Your task to perform on an android device: Open display settings Image 0: 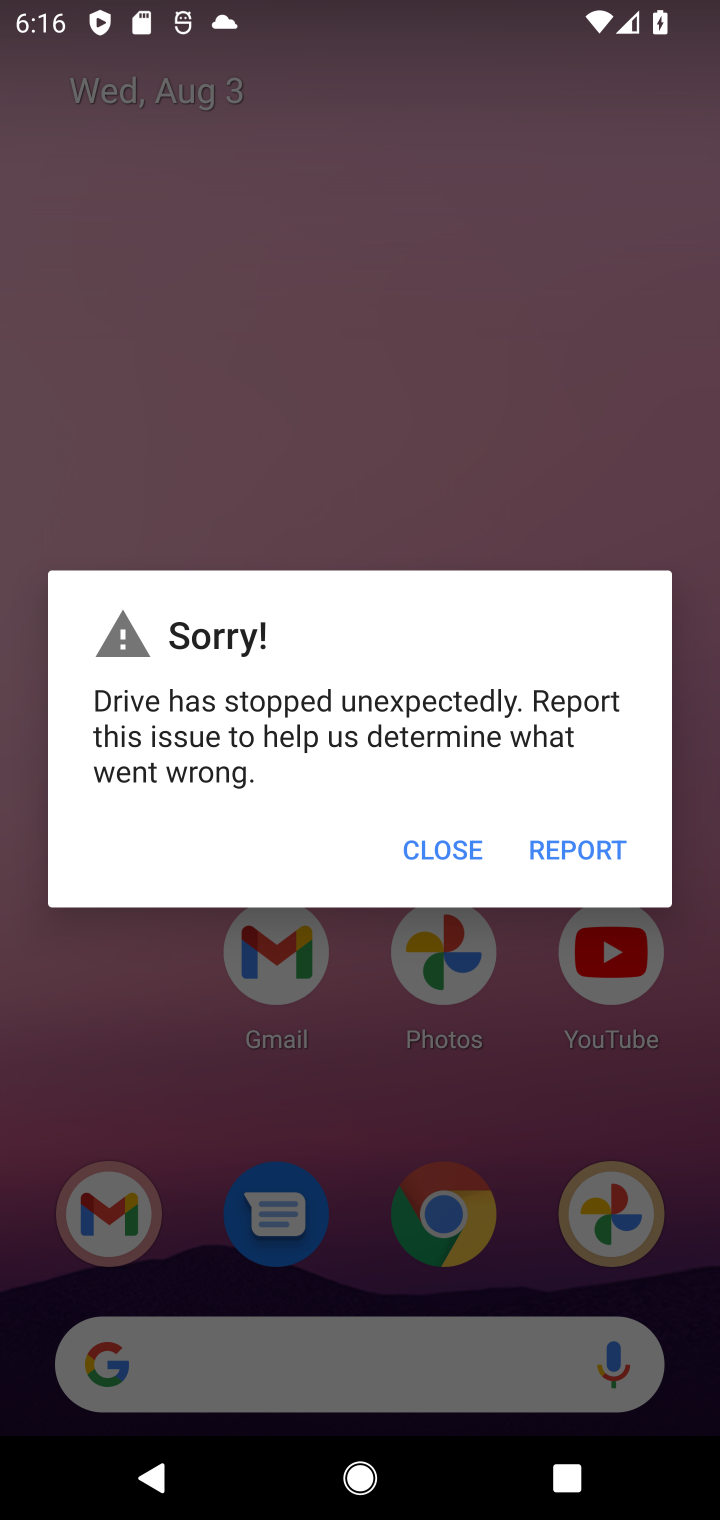
Step 0: press home button
Your task to perform on an android device: Open display settings Image 1: 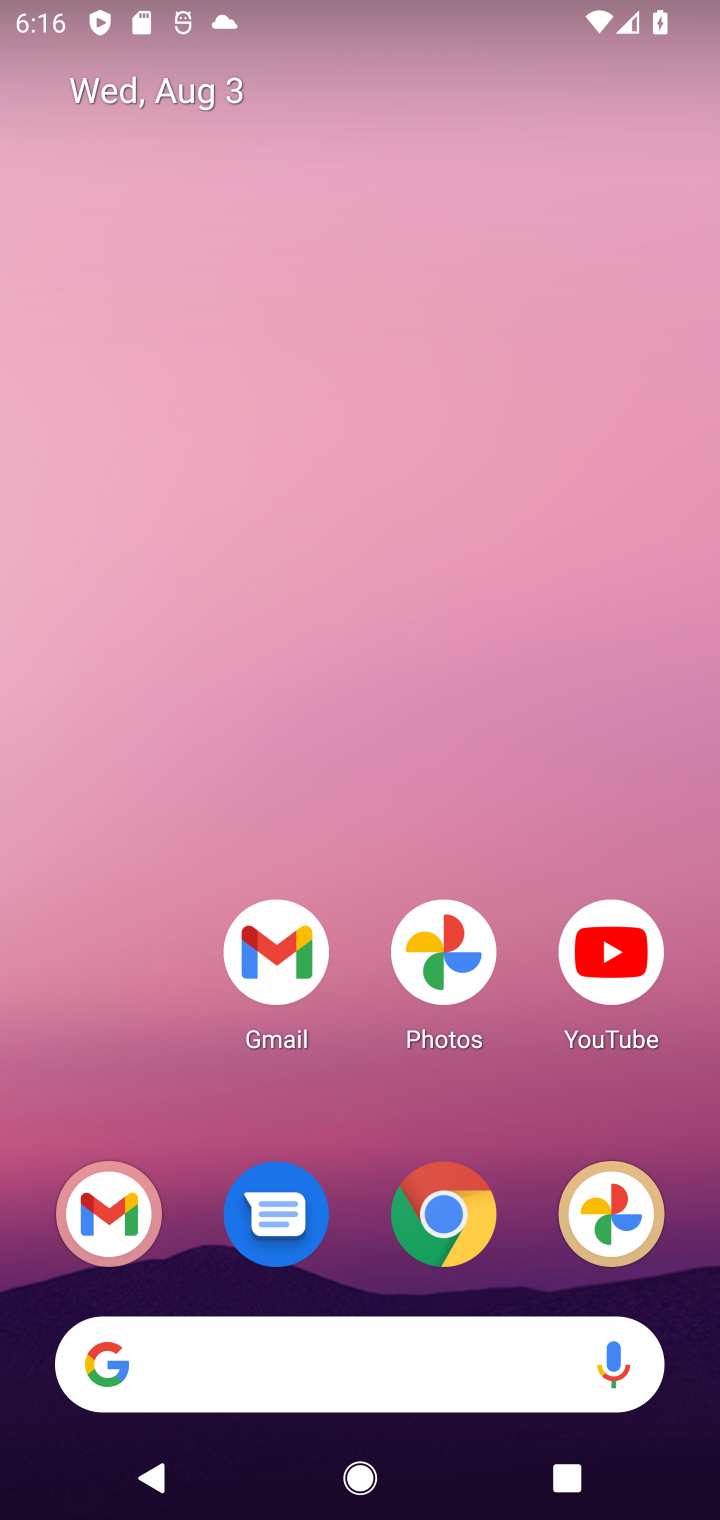
Step 1: drag from (91, 821) to (251, 16)
Your task to perform on an android device: Open display settings Image 2: 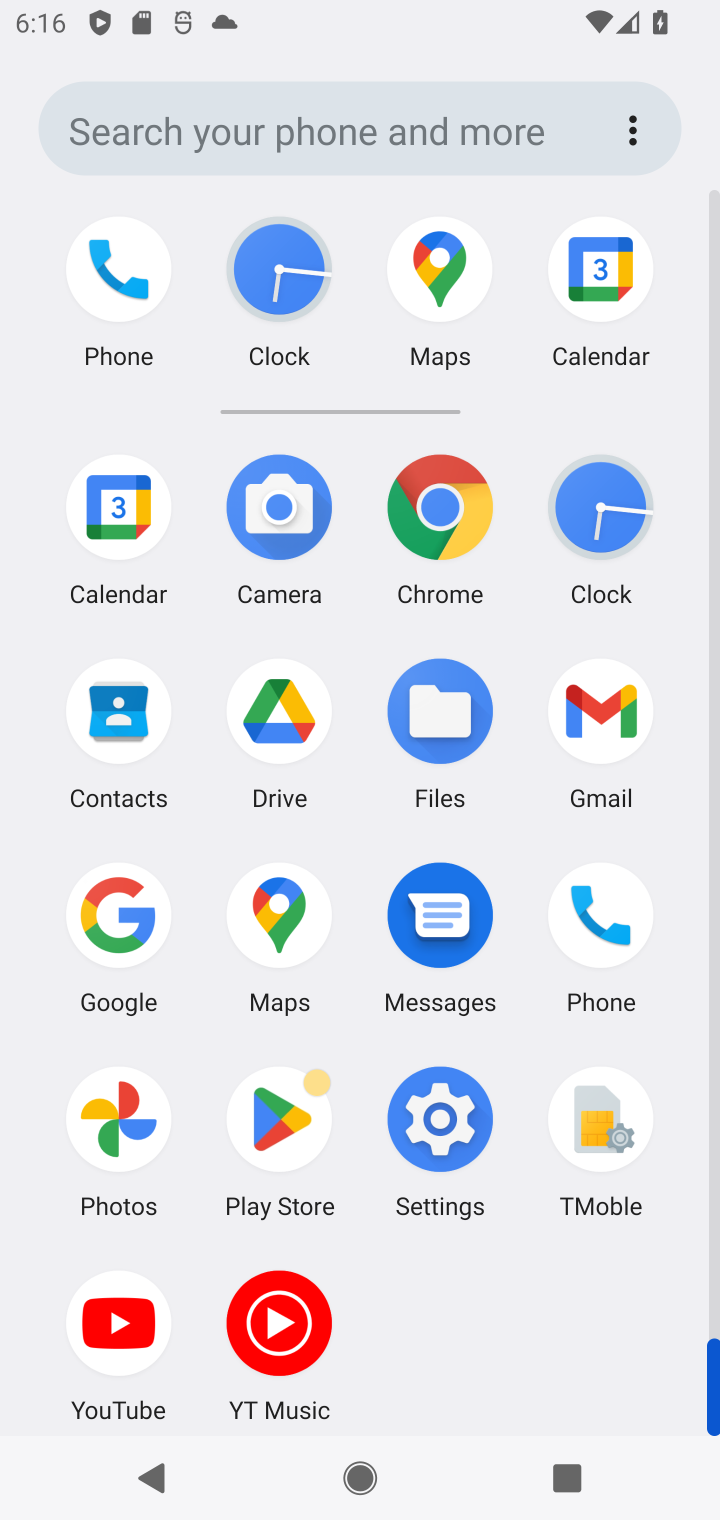
Step 2: click (461, 1113)
Your task to perform on an android device: Open display settings Image 3: 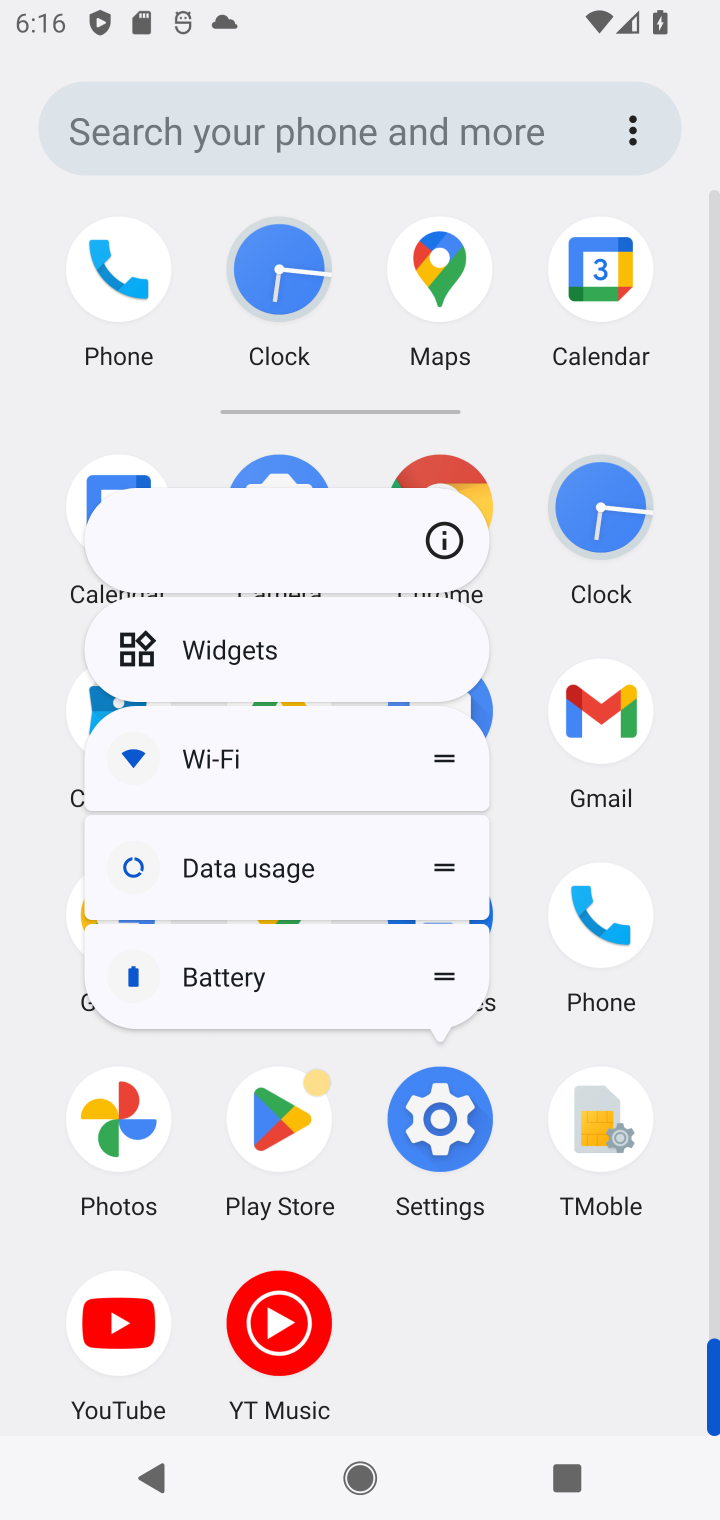
Step 3: click (454, 1102)
Your task to perform on an android device: Open display settings Image 4: 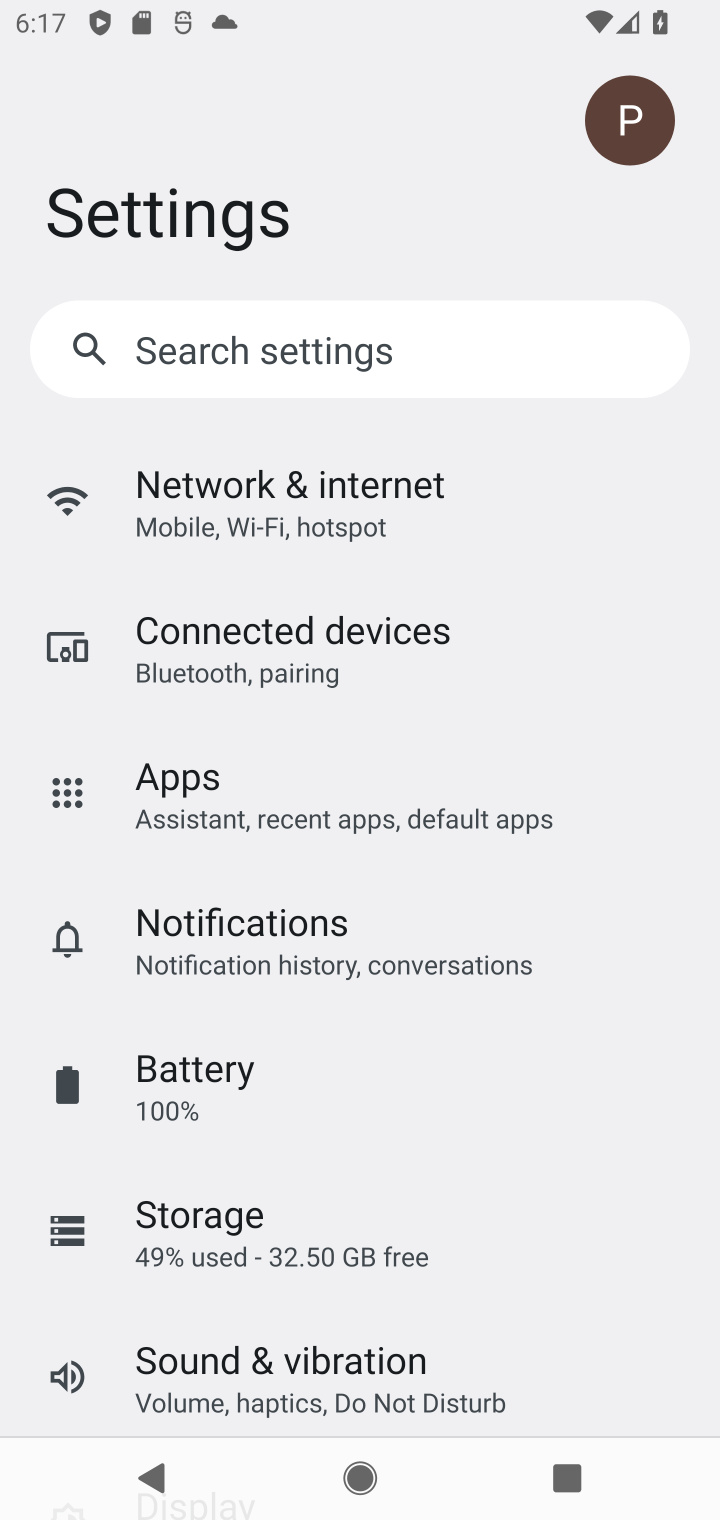
Step 4: drag from (347, 1142) to (433, 533)
Your task to perform on an android device: Open display settings Image 5: 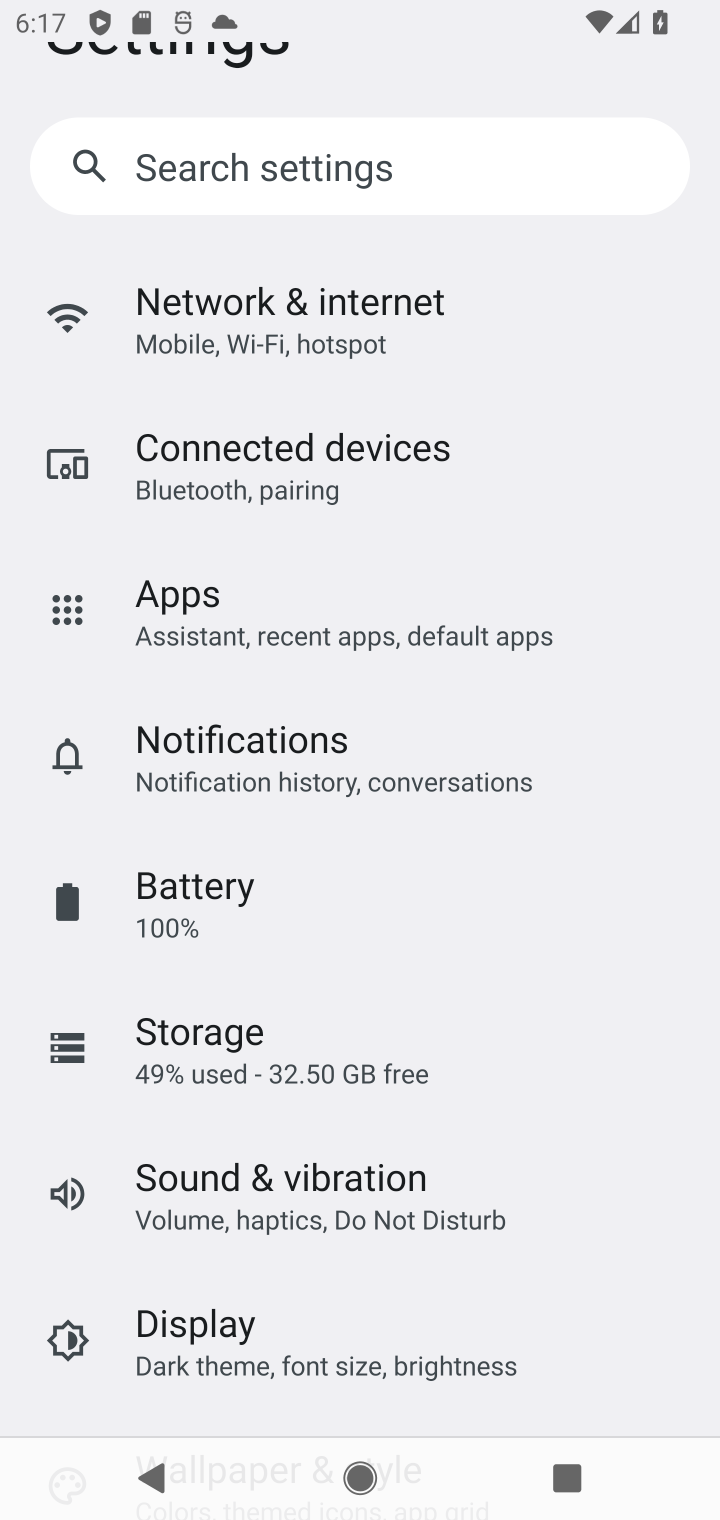
Step 5: click (256, 1361)
Your task to perform on an android device: Open display settings Image 6: 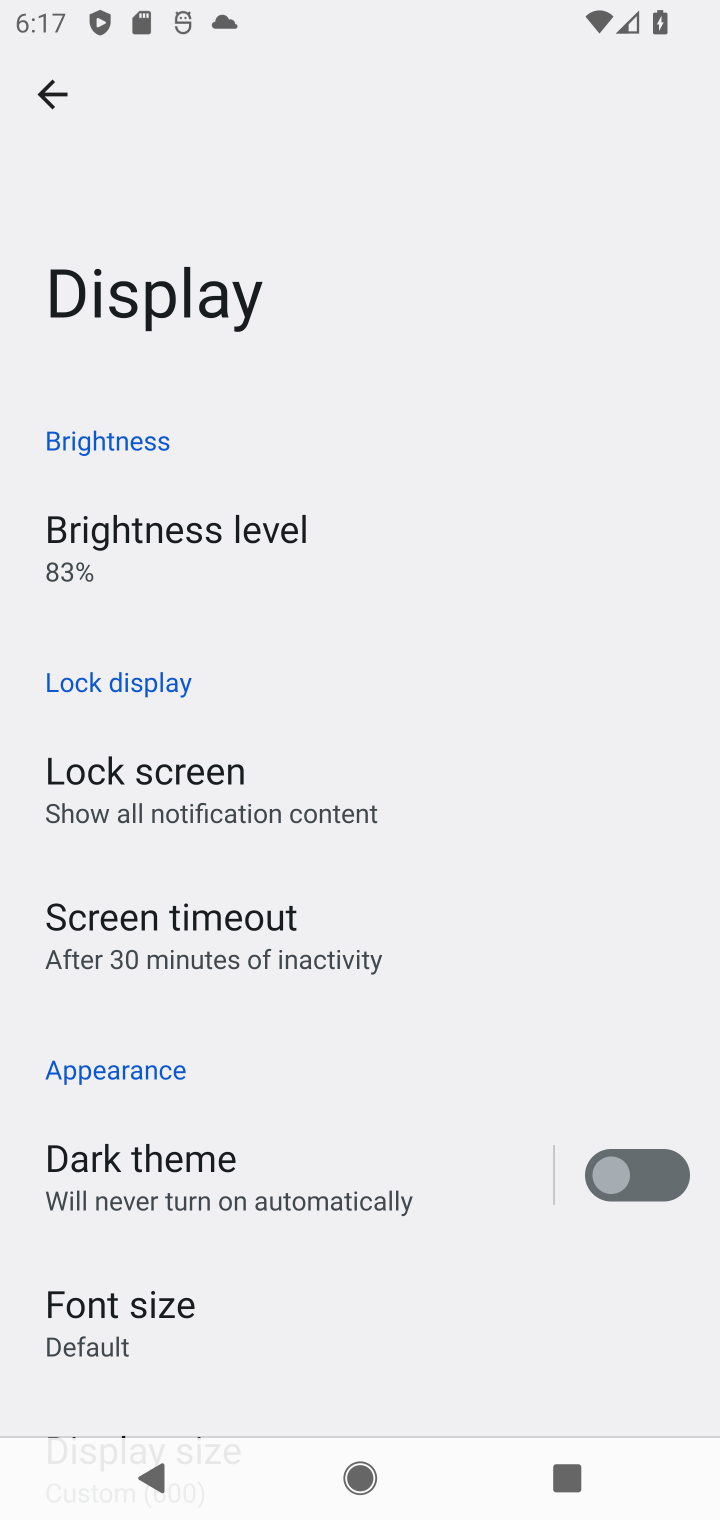
Step 6: task complete